Your task to perform on an android device: toggle airplane mode Image 0: 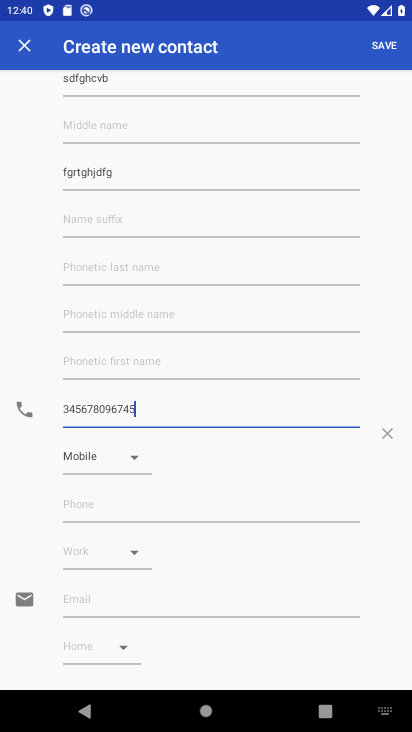
Step 0: press home button
Your task to perform on an android device: toggle airplane mode Image 1: 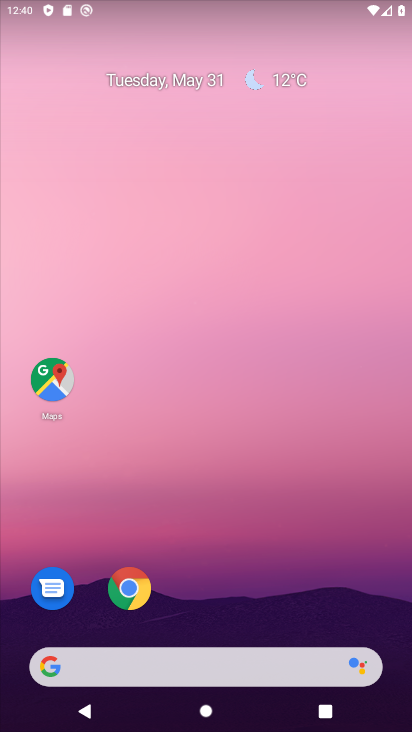
Step 1: drag from (387, 661) to (338, 167)
Your task to perform on an android device: toggle airplane mode Image 2: 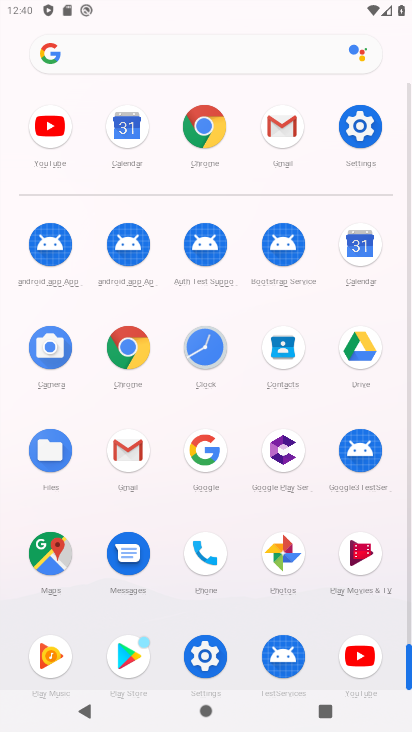
Step 2: click (205, 667)
Your task to perform on an android device: toggle airplane mode Image 3: 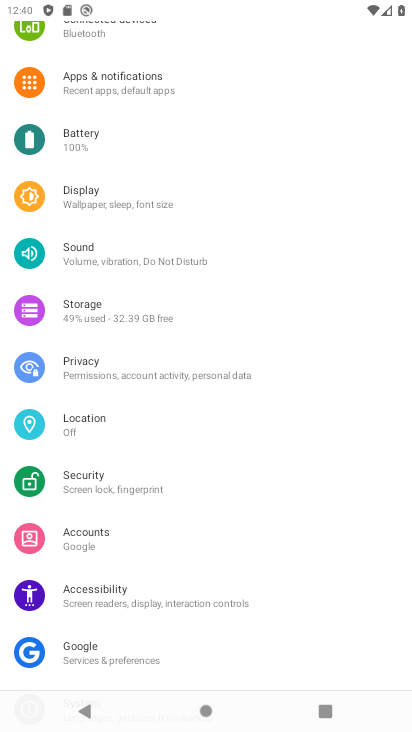
Step 3: drag from (258, 104) to (296, 532)
Your task to perform on an android device: toggle airplane mode Image 4: 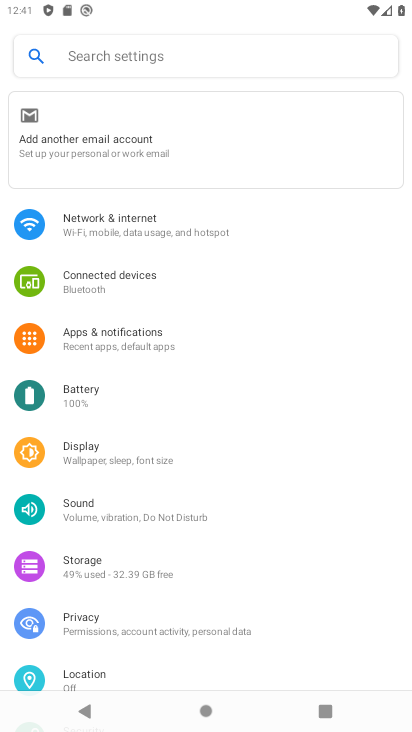
Step 4: click (124, 221)
Your task to perform on an android device: toggle airplane mode Image 5: 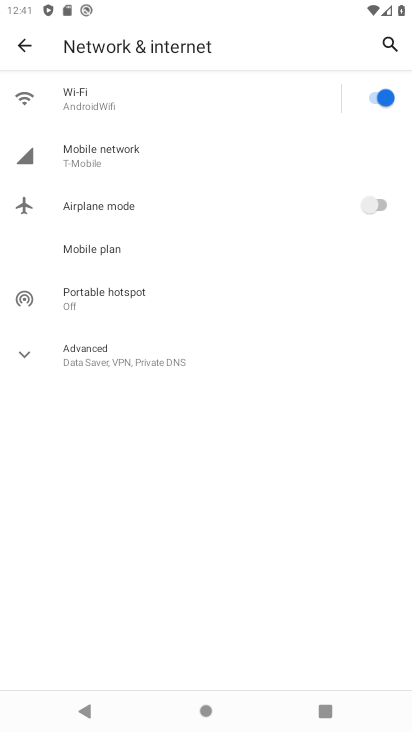
Step 5: click (381, 201)
Your task to perform on an android device: toggle airplane mode Image 6: 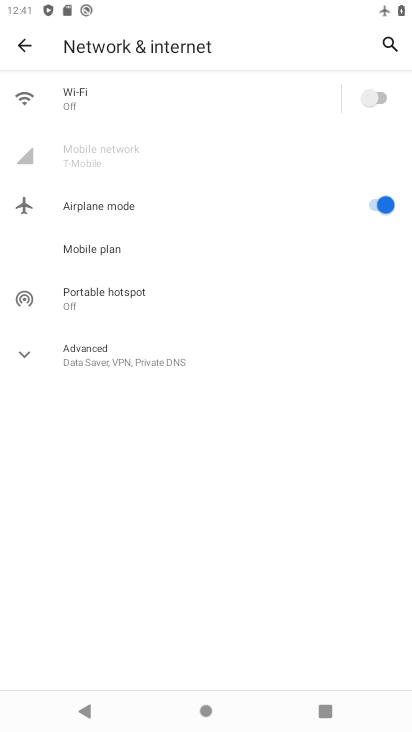
Step 6: task complete